Your task to perform on an android device: Open Amazon Image 0: 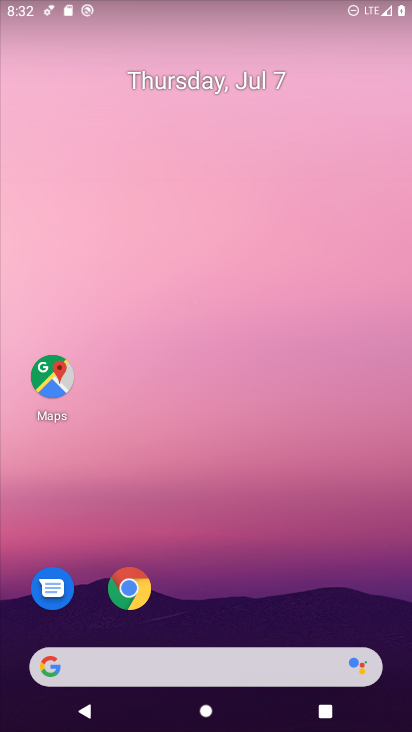
Step 0: click (213, 185)
Your task to perform on an android device: Open Amazon Image 1: 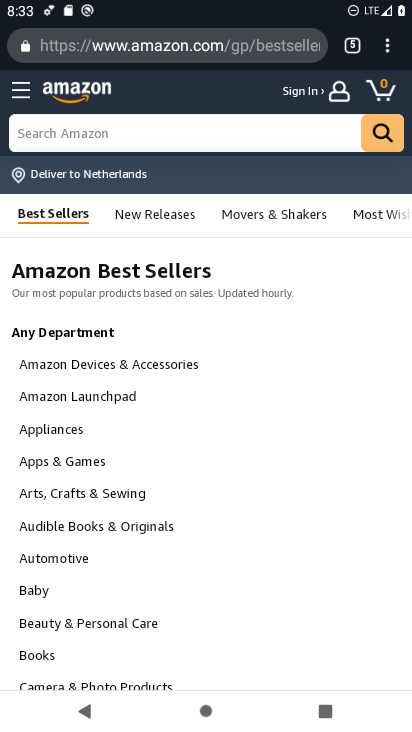
Step 1: task complete